Your task to perform on an android device: move a message to another label in the gmail app Image 0: 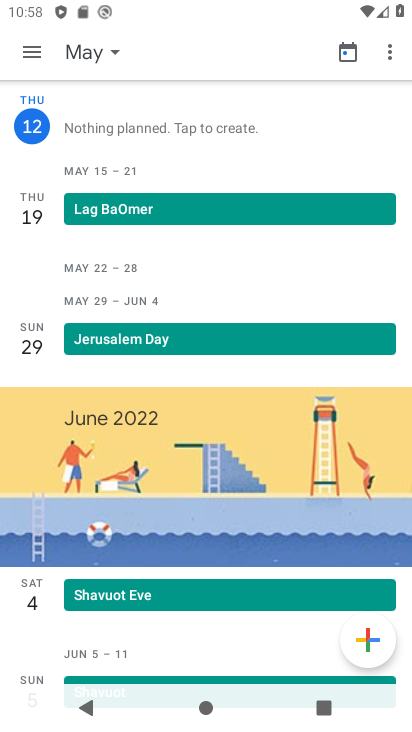
Step 0: press home button
Your task to perform on an android device: move a message to another label in the gmail app Image 1: 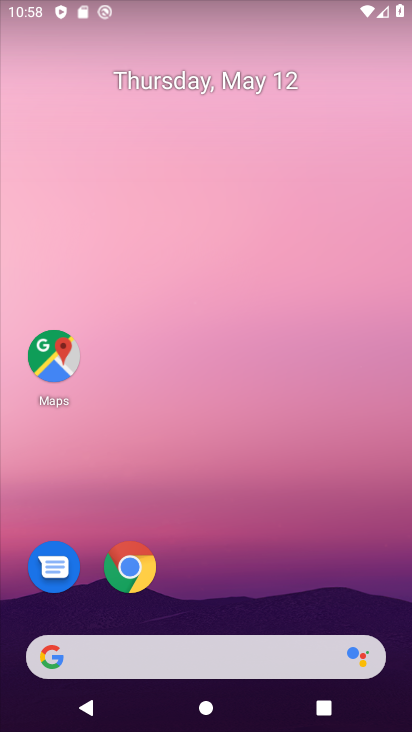
Step 1: drag from (268, 576) to (168, 67)
Your task to perform on an android device: move a message to another label in the gmail app Image 2: 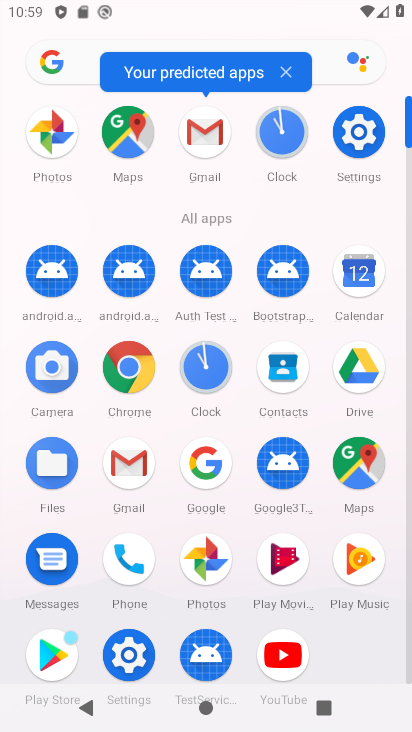
Step 2: click (125, 457)
Your task to perform on an android device: move a message to another label in the gmail app Image 3: 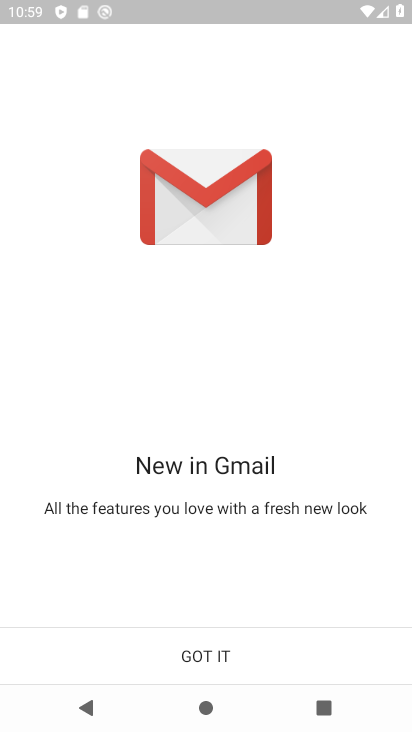
Step 3: click (223, 651)
Your task to perform on an android device: move a message to another label in the gmail app Image 4: 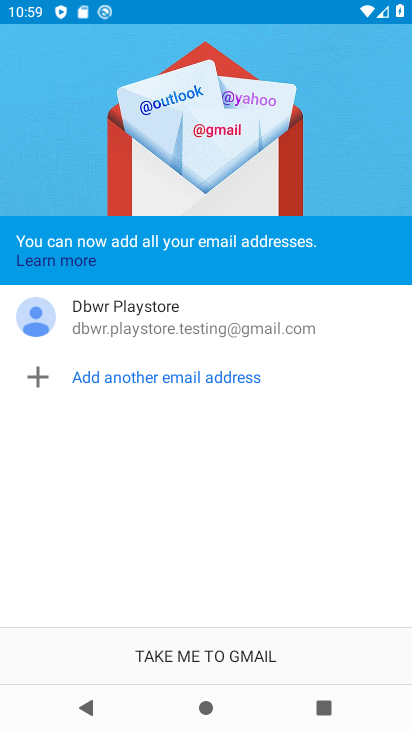
Step 4: click (223, 651)
Your task to perform on an android device: move a message to another label in the gmail app Image 5: 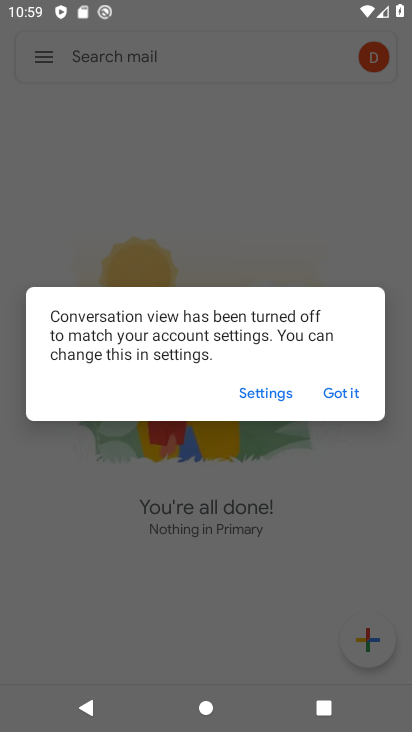
Step 5: click (345, 387)
Your task to perform on an android device: move a message to another label in the gmail app Image 6: 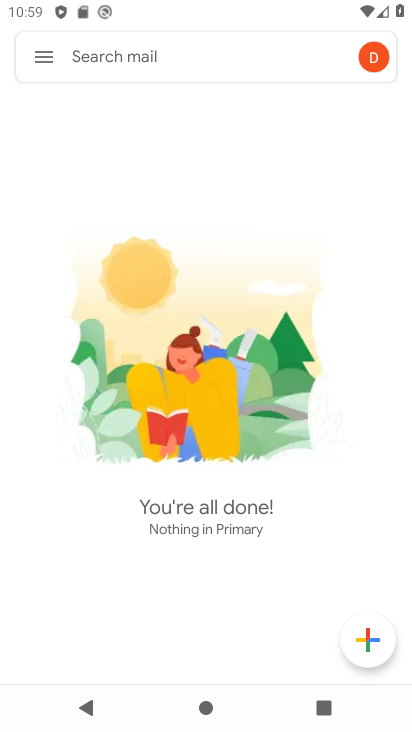
Step 6: task complete